Your task to perform on an android device: Go to accessibility settings Image 0: 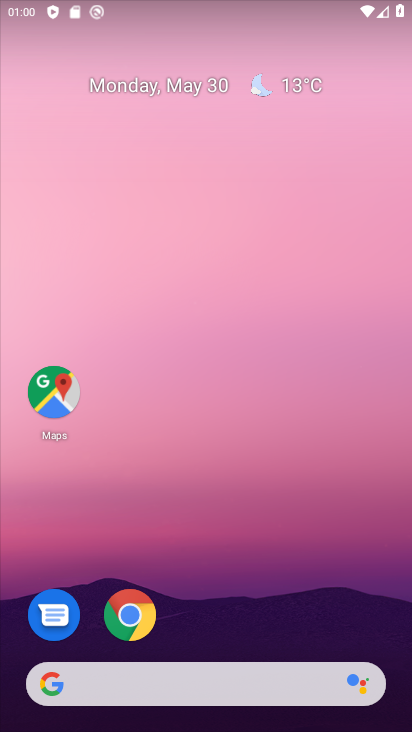
Step 0: drag from (214, 681) to (411, 133)
Your task to perform on an android device: Go to accessibility settings Image 1: 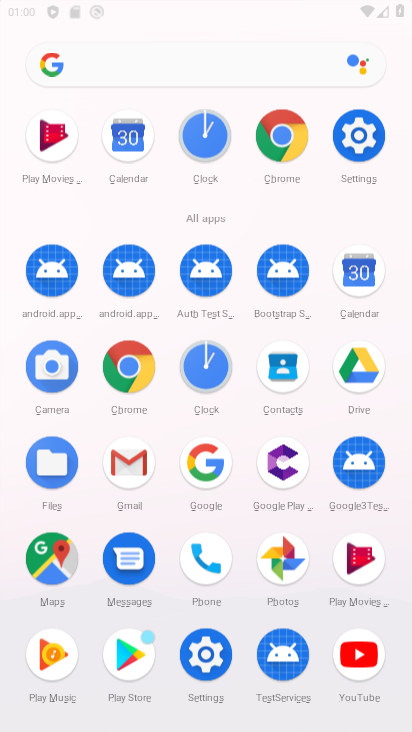
Step 1: click (338, 129)
Your task to perform on an android device: Go to accessibility settings Image 2: 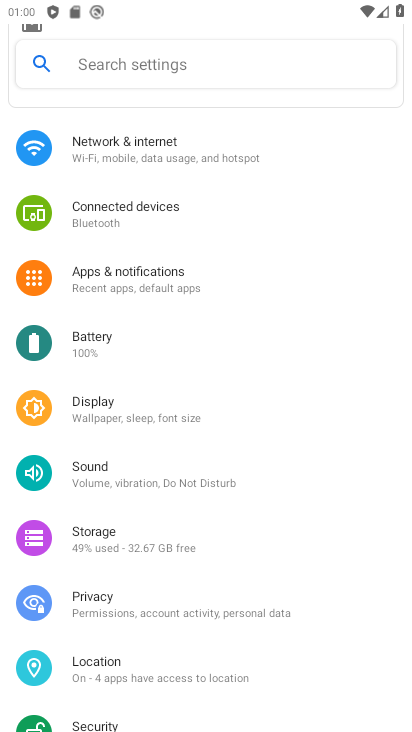
Step 2: drag from (243, 520) to (208, 140)
Your task to perform on an android device: Go to accessibility settings Image 3: 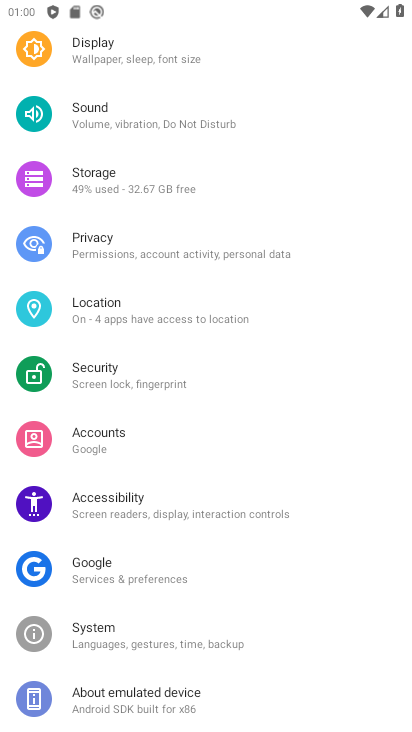
Step 3: click (149, 505)
Your task to perform on an android device: Go to accessibility settings Image 4: 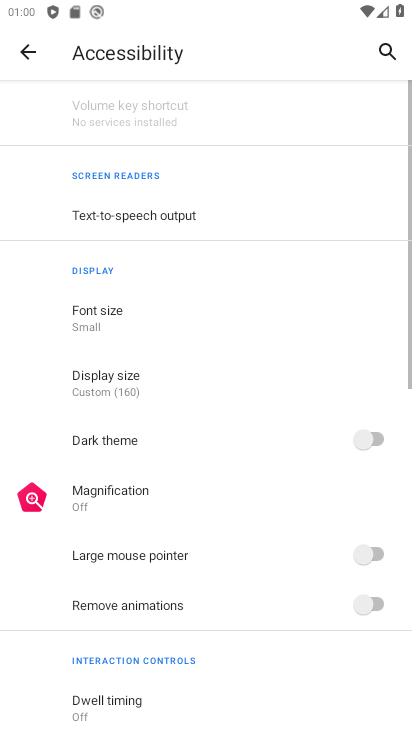
Step 4: task complete